Your task to perform on an android device: Go to Amazon Image 0: 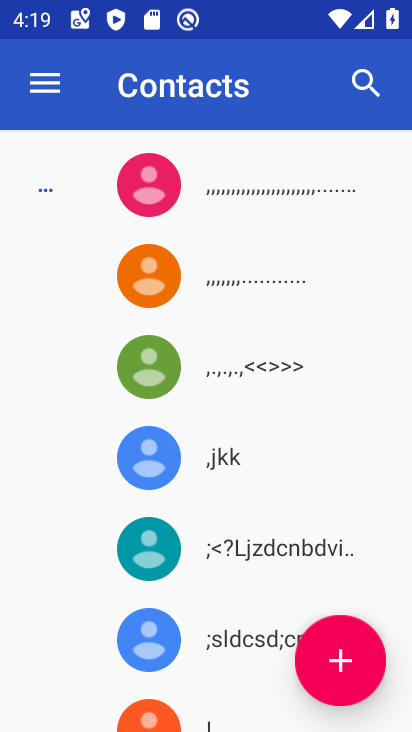
Step 0: press home button
Your task to perform on an android device: Go to Amazon Image 1: 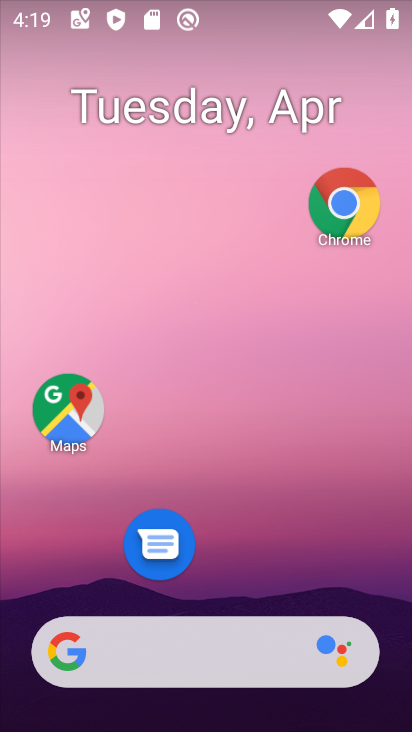
Step 1: click (361, 207)
Your task to perform on an android device: Go to Amazon Image 2: 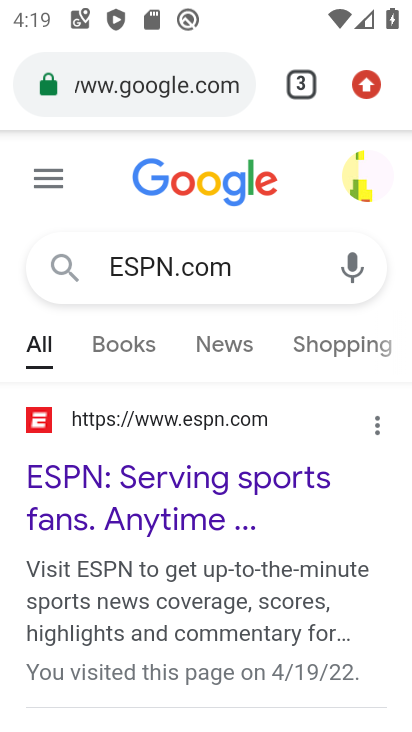
Step 2: click (368, 85)
Your task to perform on an android device: Go to Amazon Image 3: 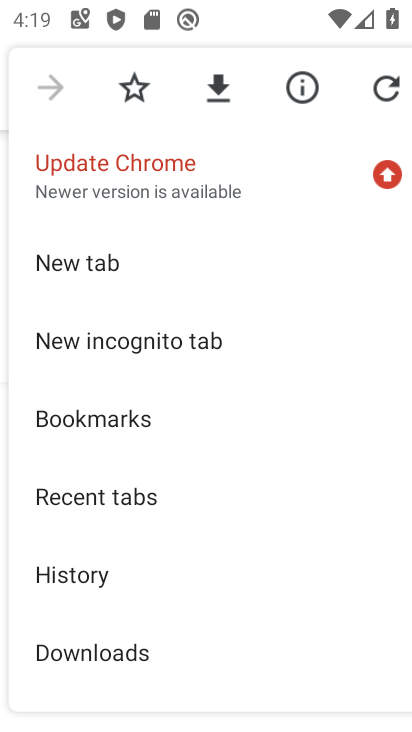
Step 3: click (109, 266)
Your task to perform on an android device: Go to Amazon Image 4: 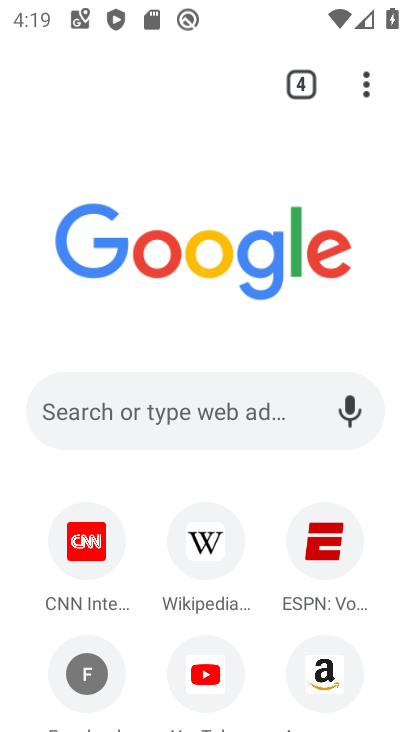
Step 4: click (334, 677)
Your task to perform on an android device: Go to Amazon Image 5: 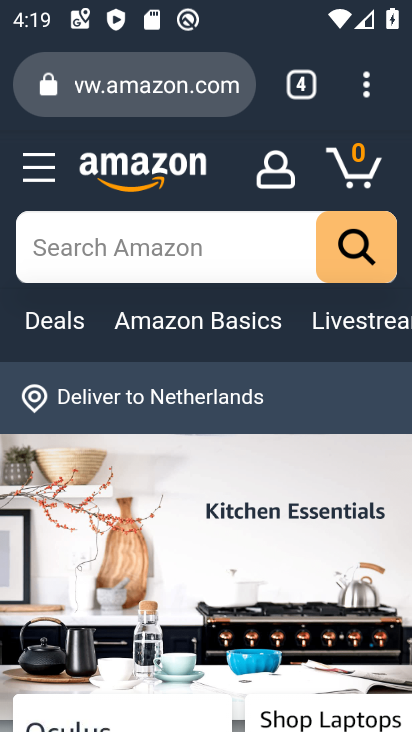
Step 5: task complete